Your task to perform on an android device: Add energizer triple a to the cart on target.com Image 0: 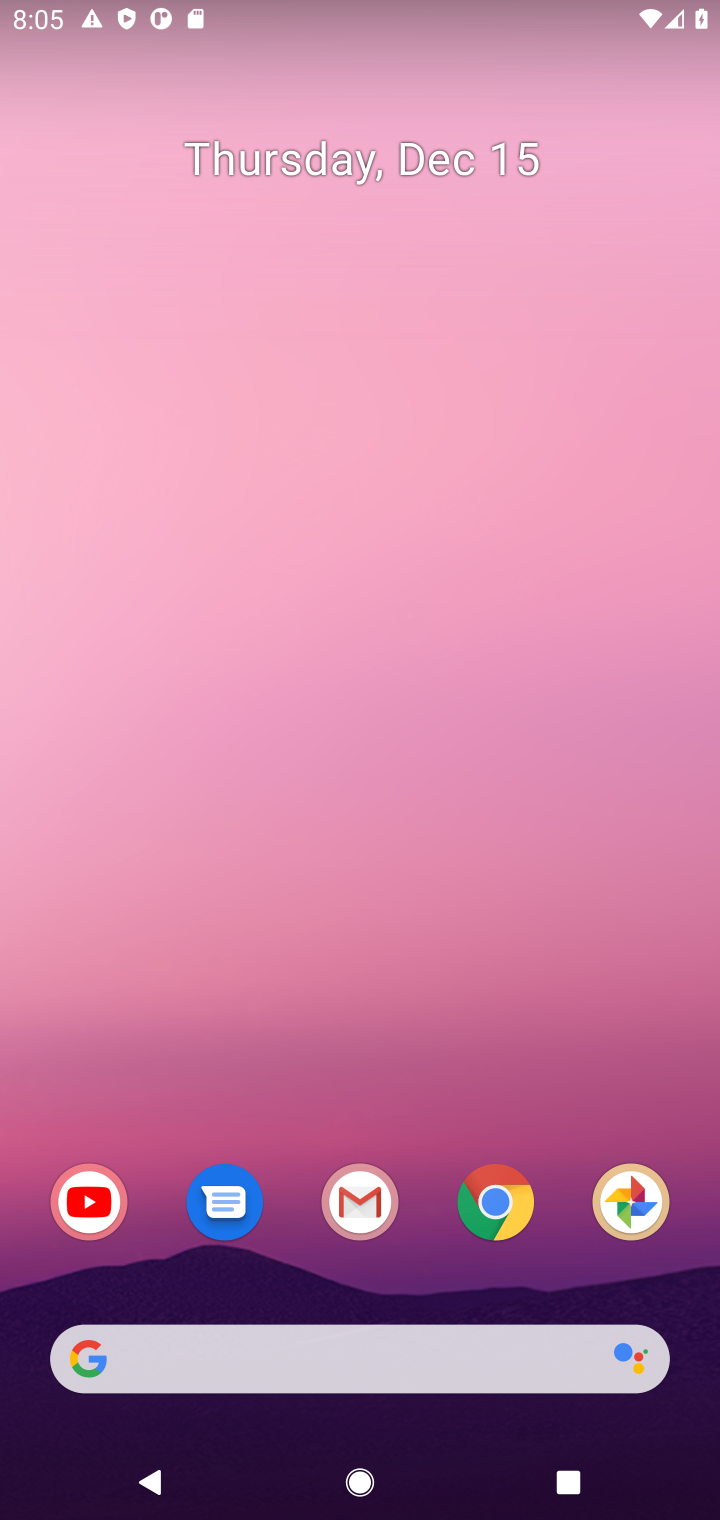
Step 0: click (497, 1207)
Your task to perform on an android device: Add energizer triple a to the cart on target.com Image 1: 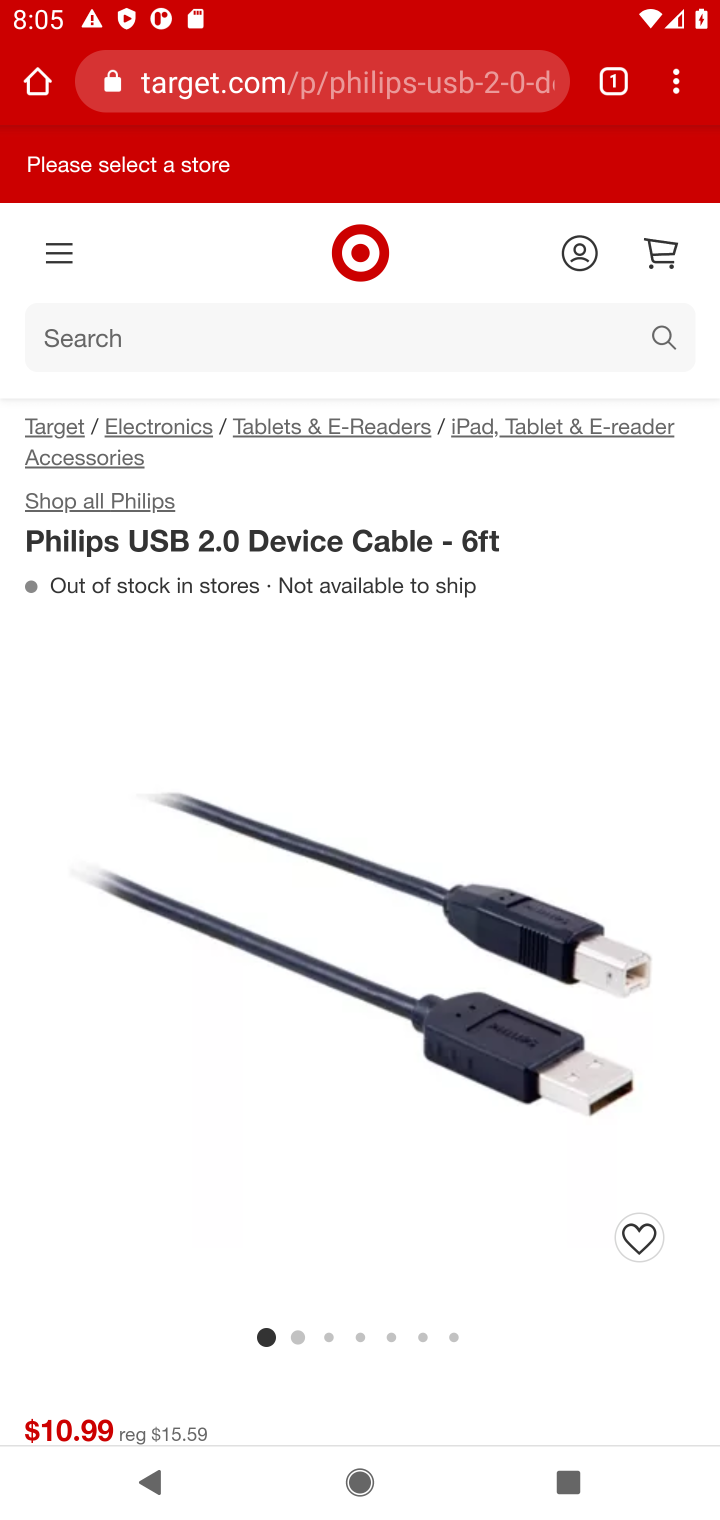
Step 1: click (102, 338)
Your task to perform on an android device: Add energizer triple a to the cart on target.com Image 2: 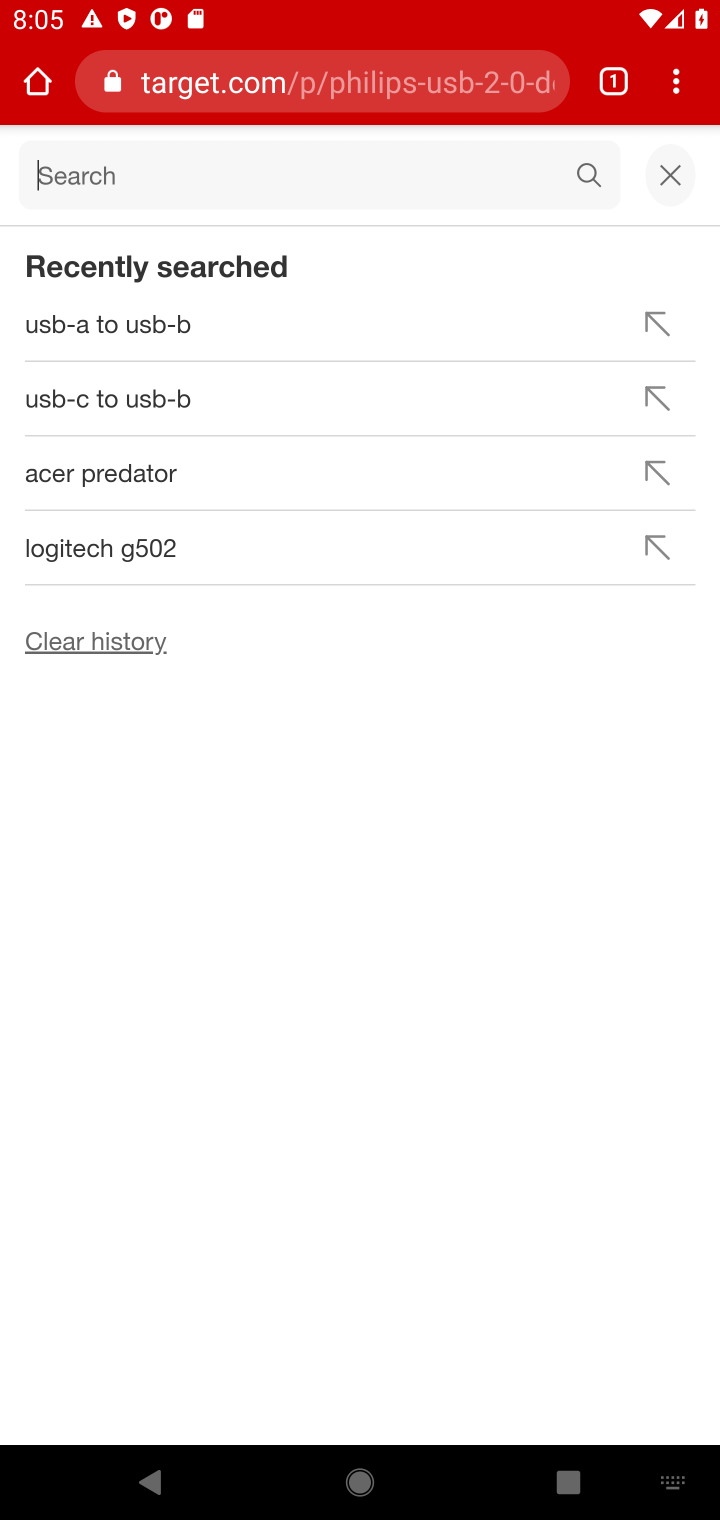
Step 2: type "energizer triple a"
Your task to perform on an android device: Add energizer triple a to the cart on target.com Image 3: 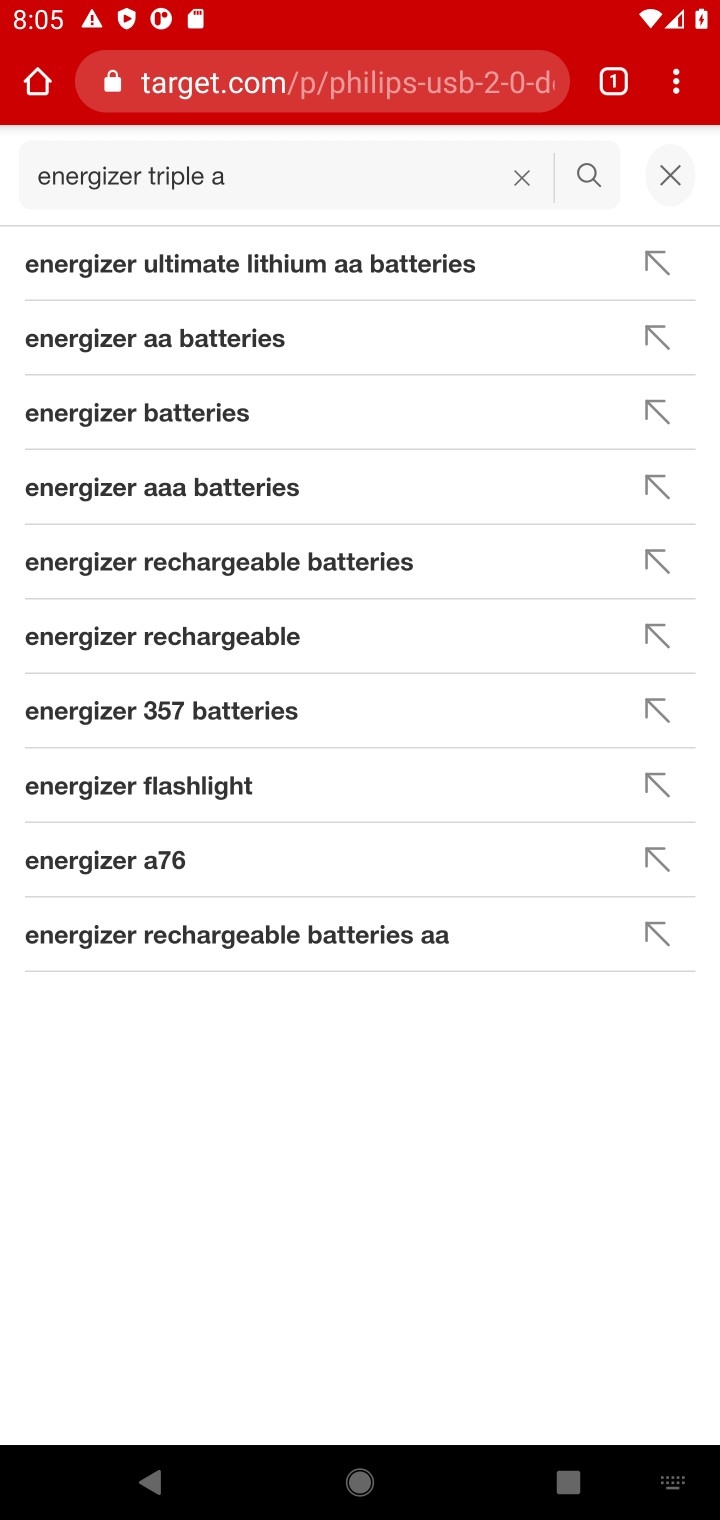
Step 3: click (573, 179)
Your task to perform on an android device: Add energizer triple a to the cart on target.com Image 4: 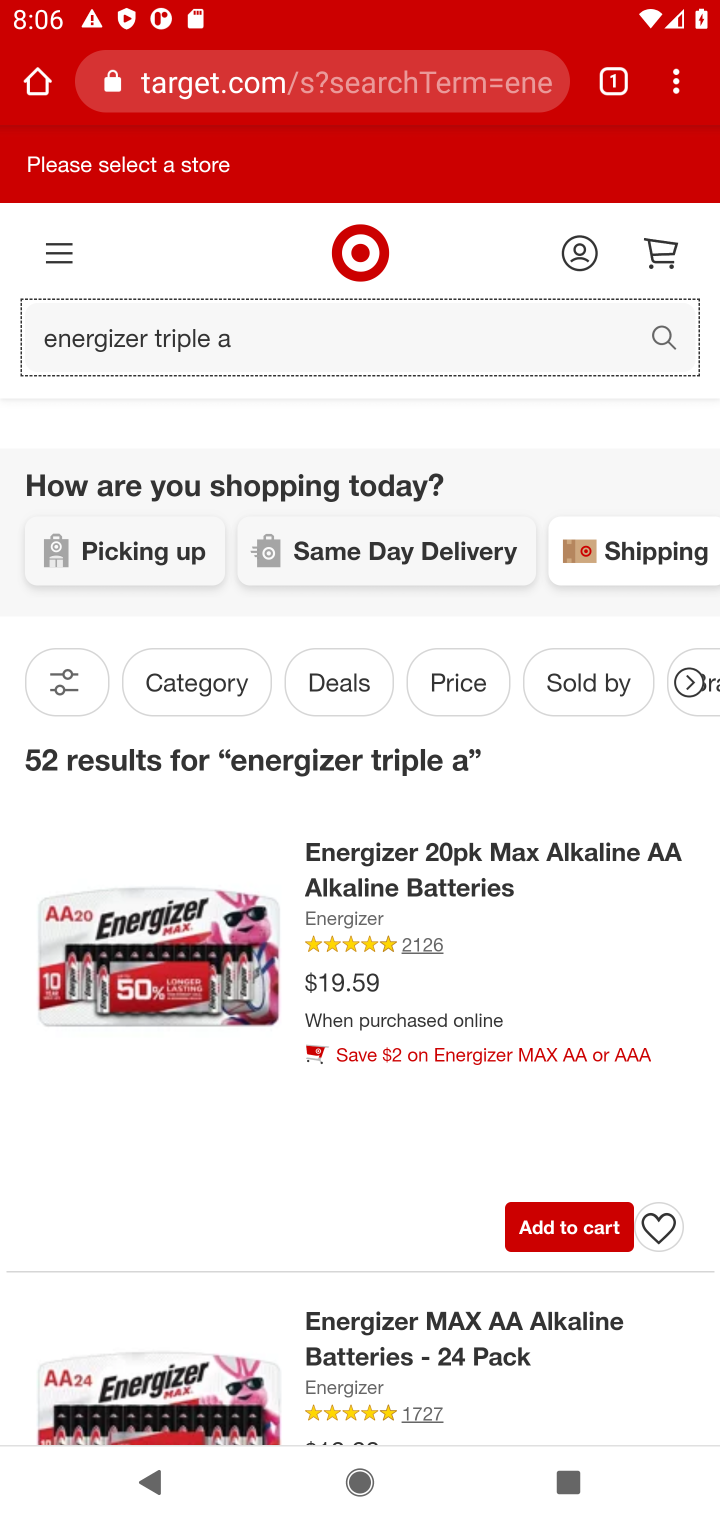
Step 4: drag from (198, 1139) to (203, 684)
Your task to perform on an android device: Add energizer triple a to the cart on target.com Image 5: 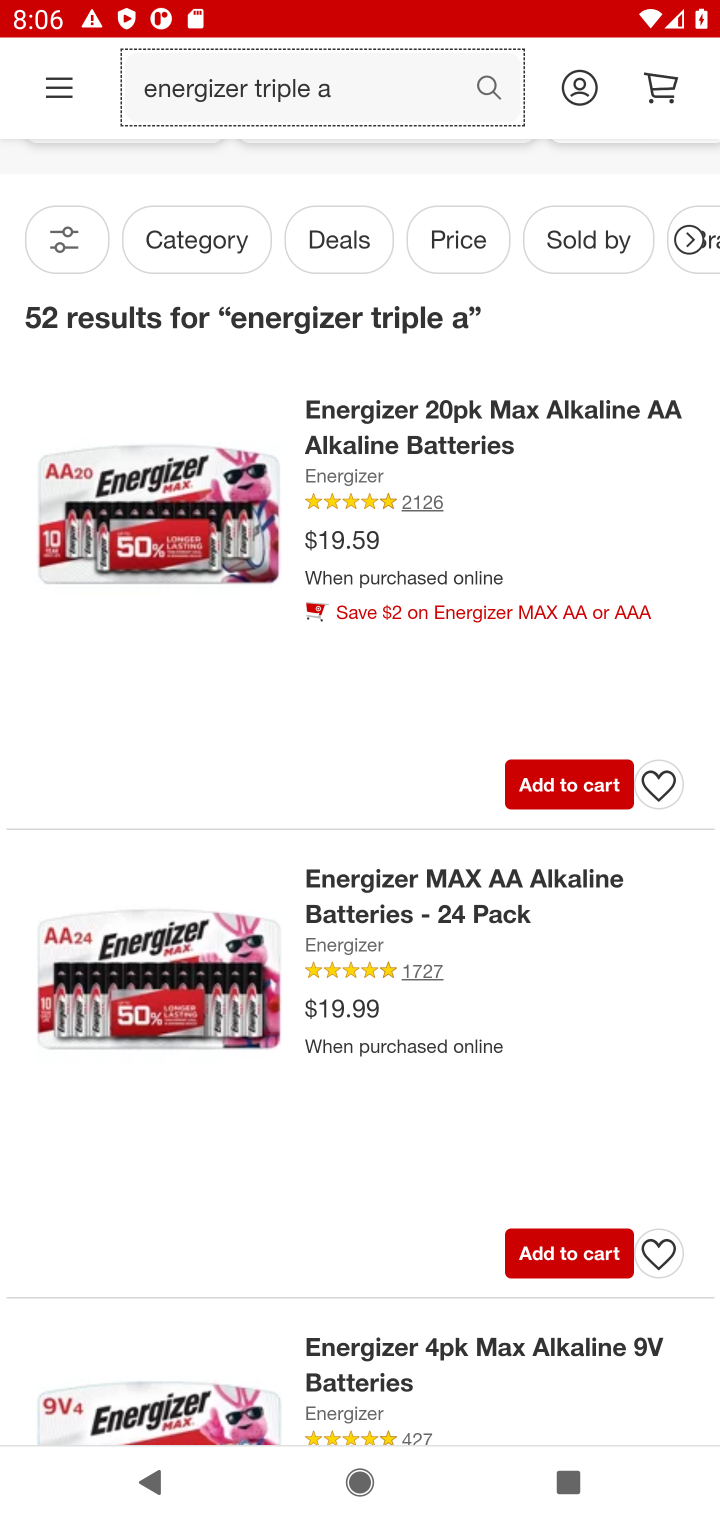
Step 5: drag from (242, 1035) to (204, 540)
Your task to perform on an android device: Add energizer triple a to the cart on target.com Image 6: 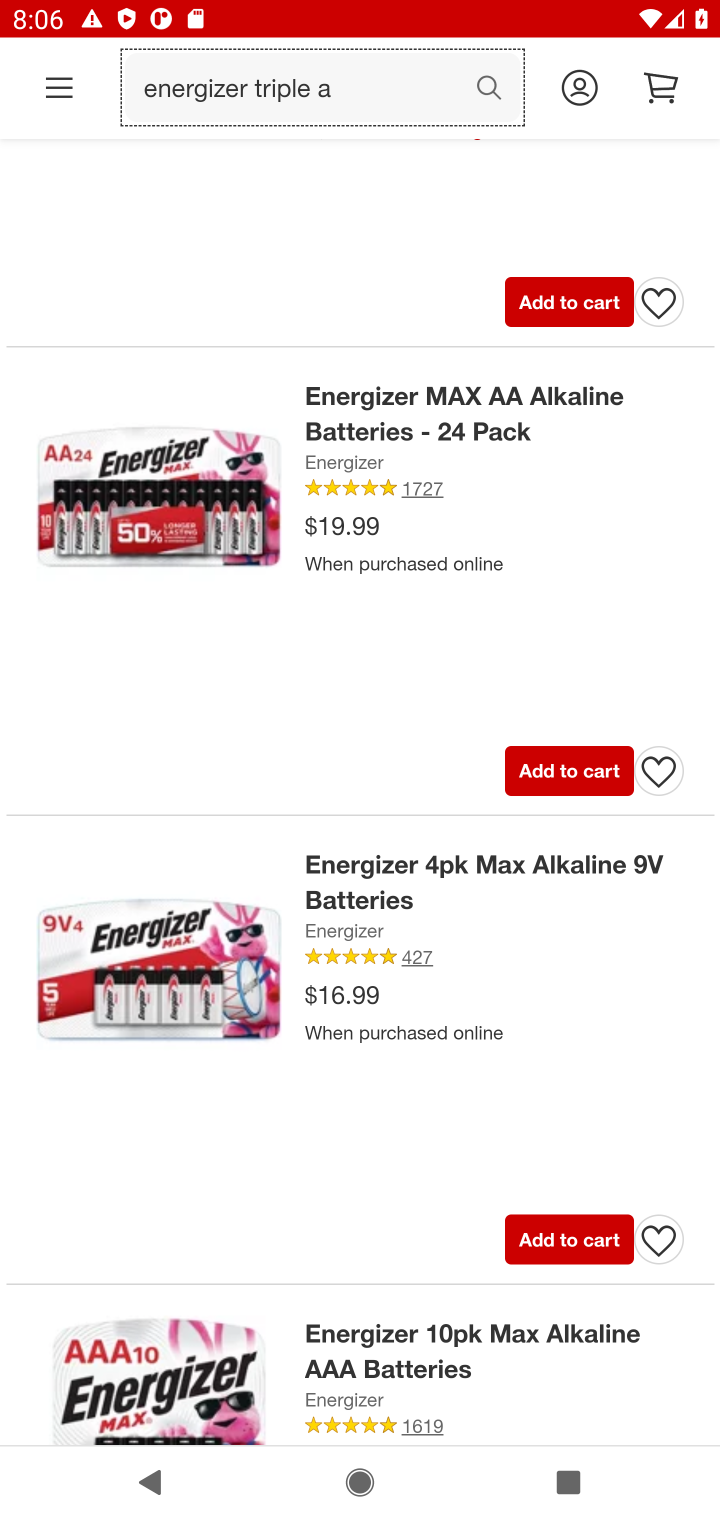
Step 6: drag from (217, 1001) to (265, 558)
Your task to perform on an android device: Add energizer triple a to the cart on target.com Image 7: 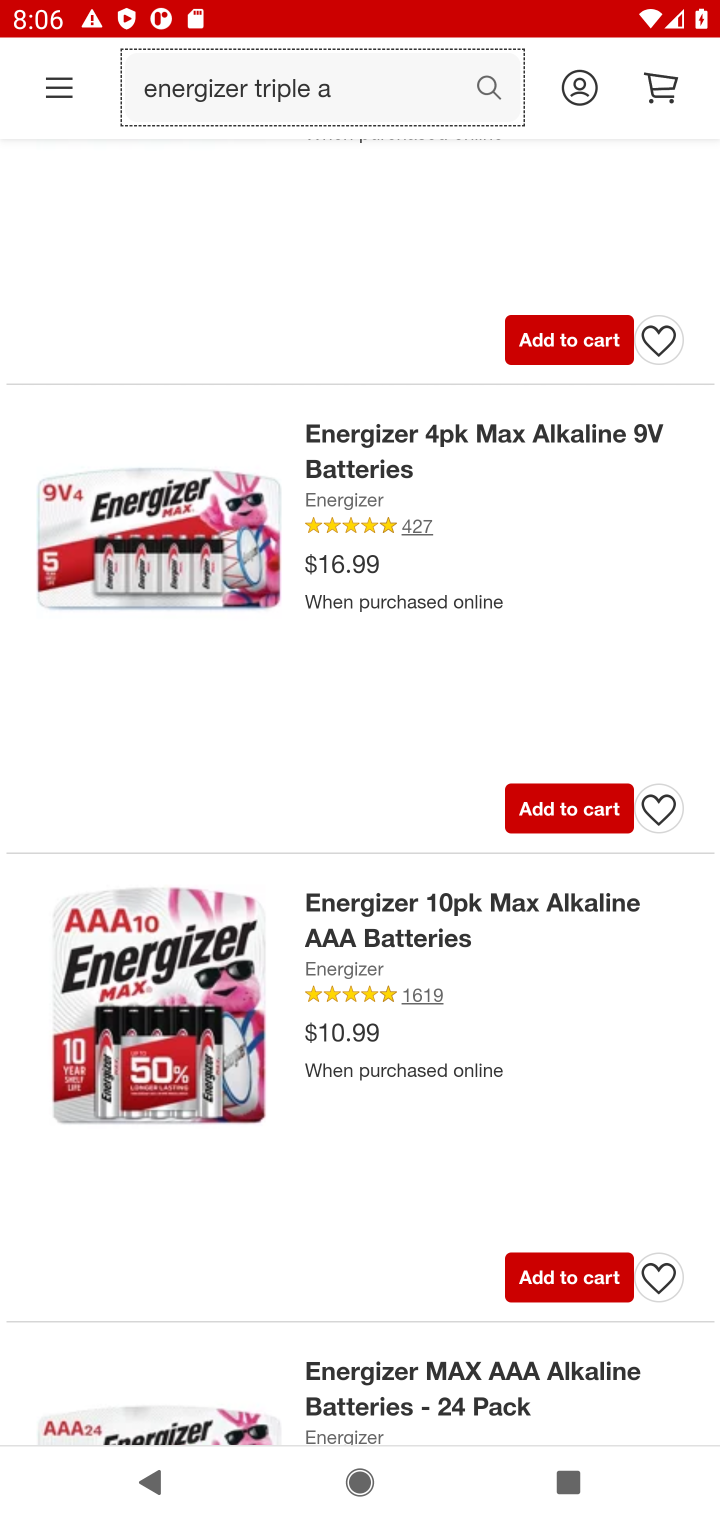
Step 7: click (543, 1286)
Your task to perform on an android device: Add energizer triple a to the cart on target.com Image 8: 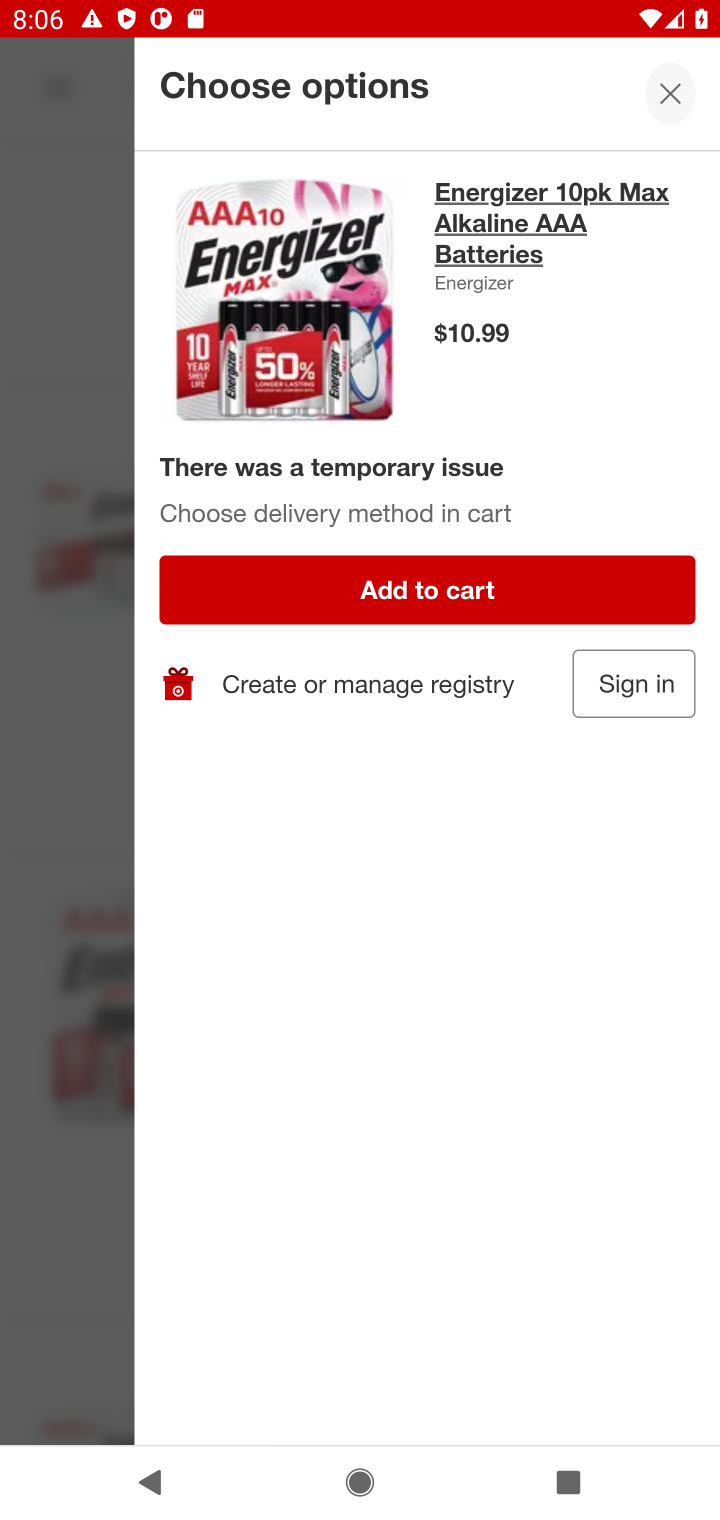
Step 8: click (398, 582)
Your task to perform on an android device: Add energizer triple a to the cart on target.com Image 9: 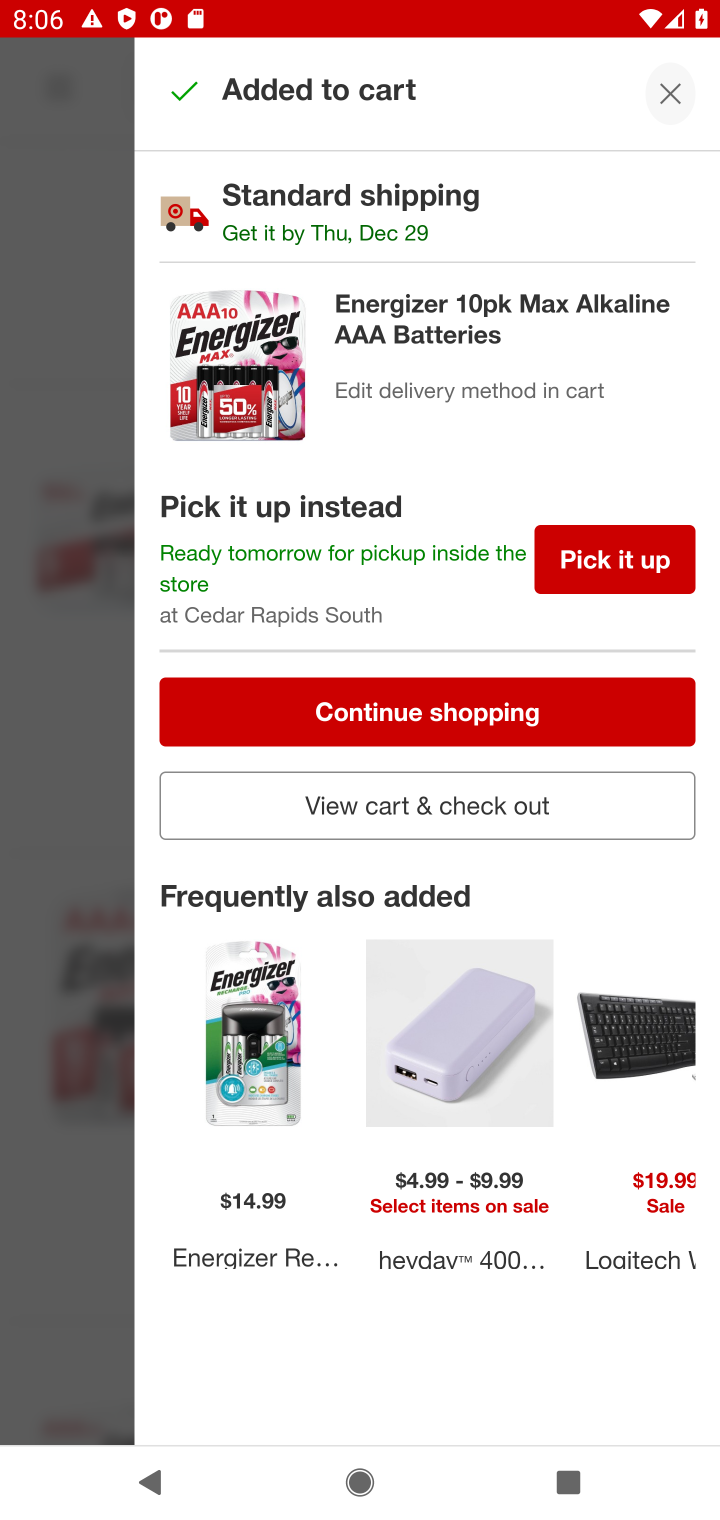
Step 9: task complete